Your task to perform on an android device: Toggle the flashlight Image 0: 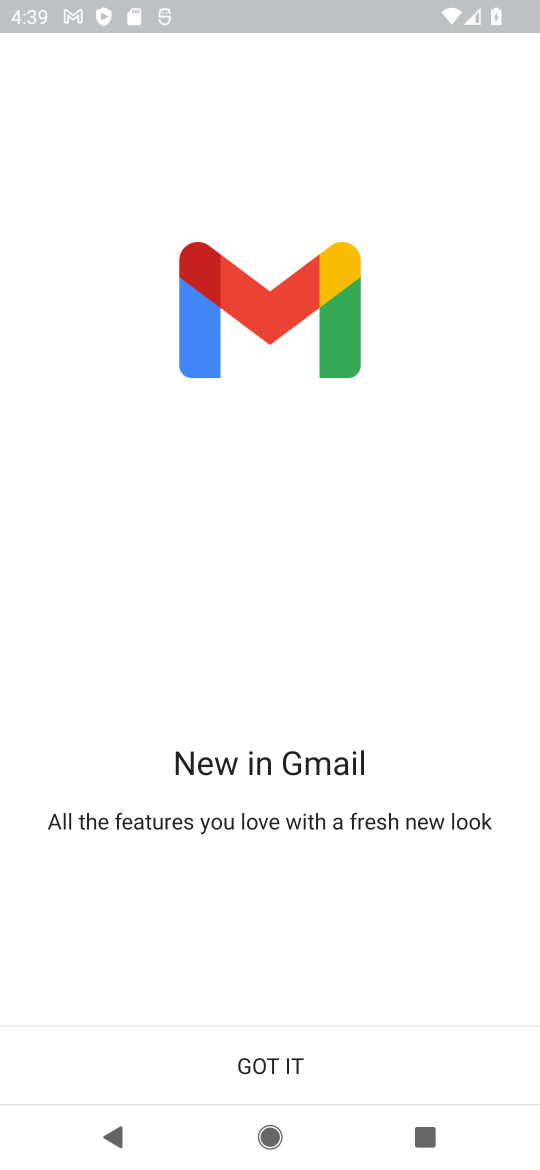
Step 0: press home button
Your task to perform on an android device: Toggle the flashlight Image 1: 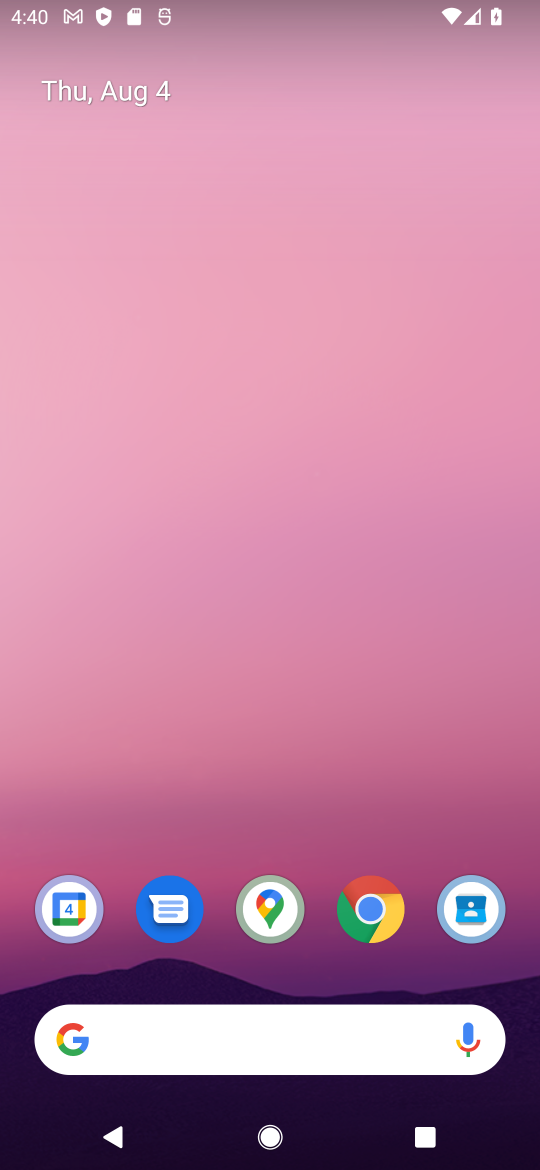
Step 1: drag from (257, 949) to (306, 0)
Your task to perform on an android device: Toggle the flashlight Image 2: 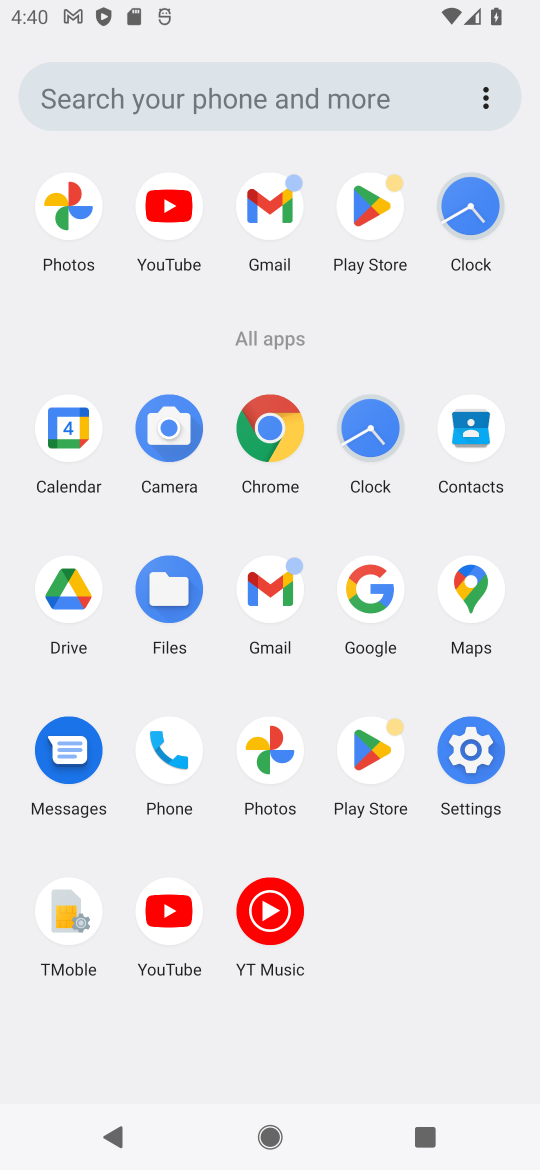
Step 2: click (471, 768)
Your task to perform on an android device: Toggle the flashlight Image 3: 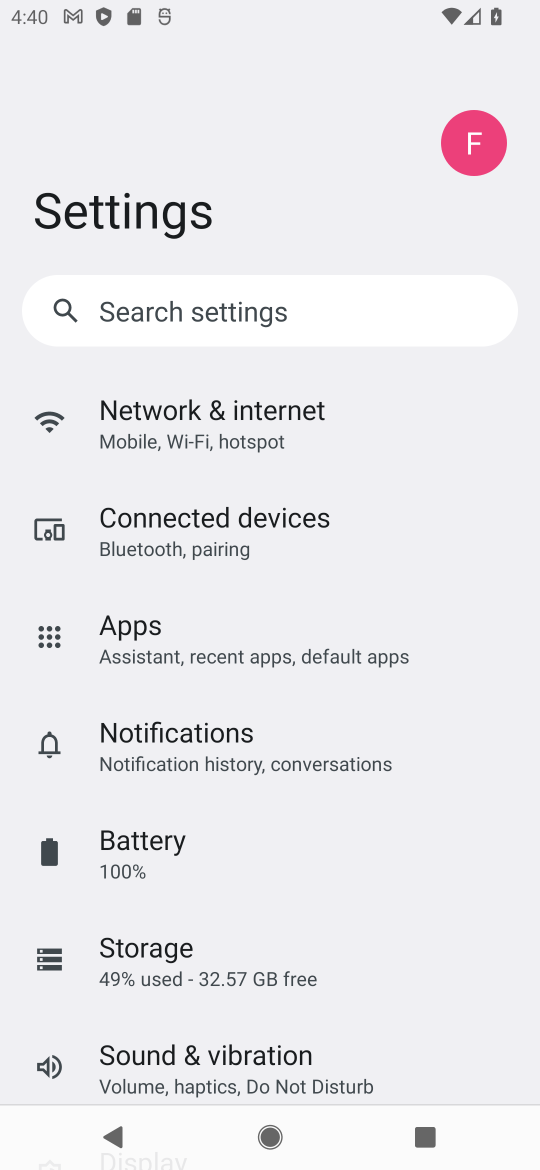
Step 3: click (225, 303)
Your task to perform on an android device: Toggle the flashlight Image 4: 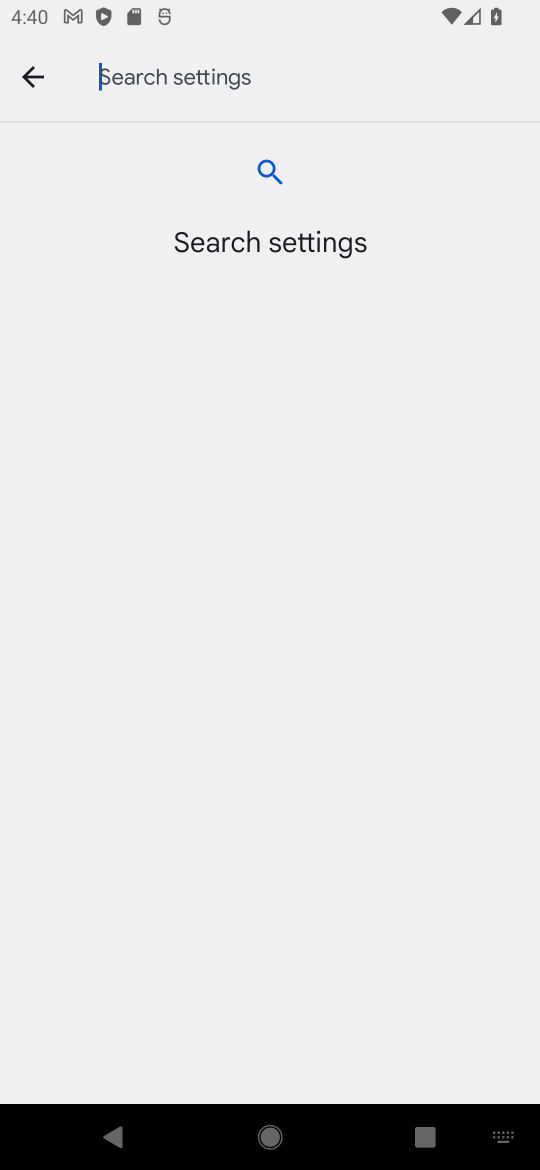
Step 4: type "flashlight"
Your task to perform on an android device: Toggle the flashlight Image 5: 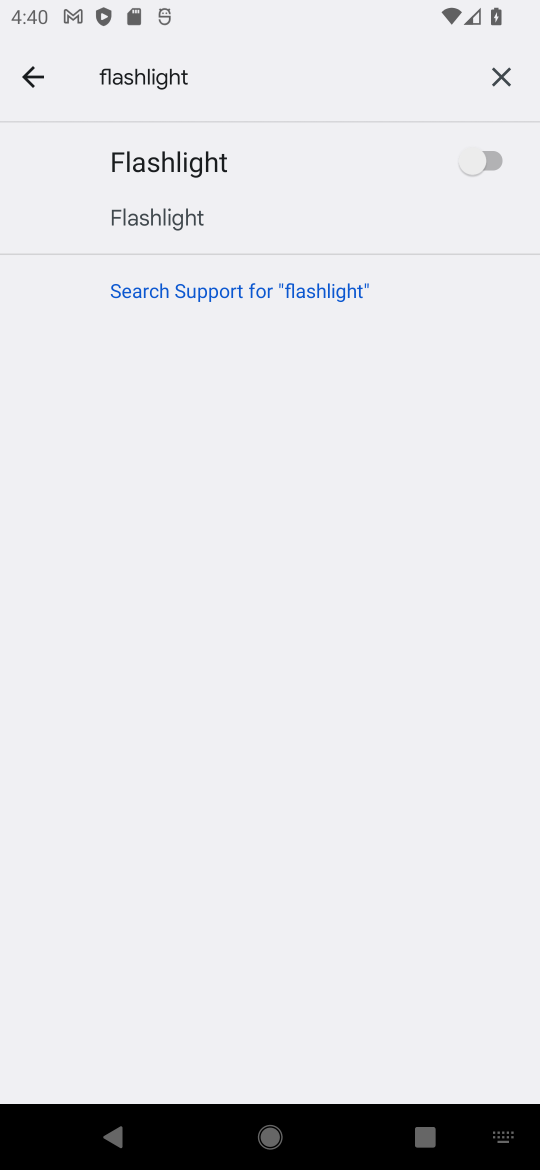
Step 5: click (500, 151)
Your task to perform on an android device: Toggle the flashlight Image 6: 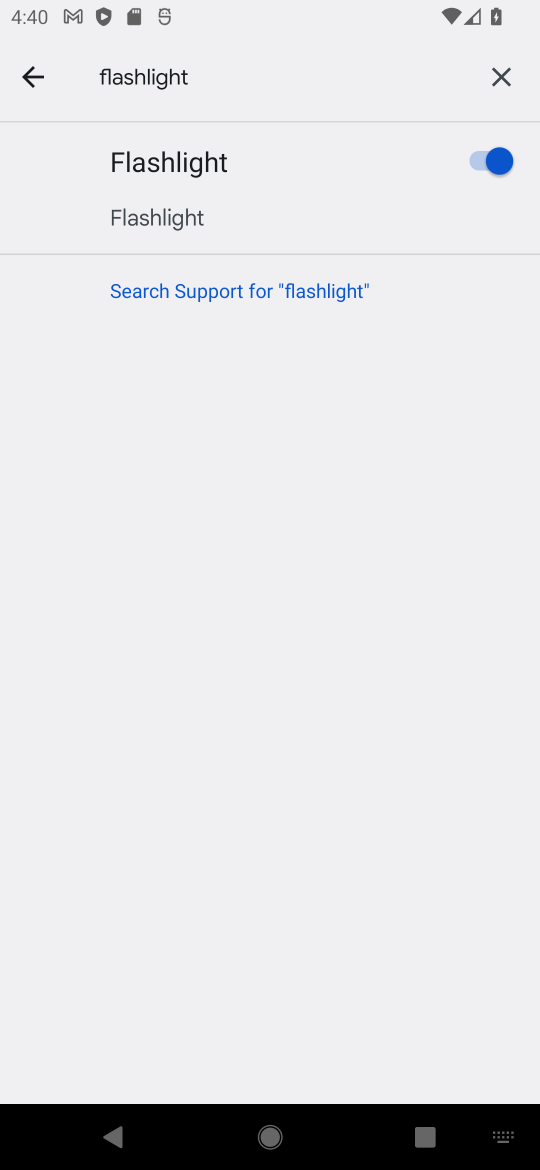
Step 6: task complete